Your task to perform on an android device: What's the weather? Image 0: 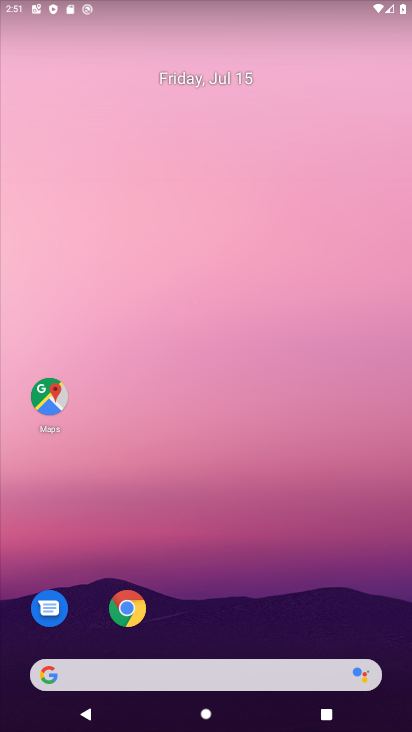
Step 0: drag from (0, 214) to (411, 233)
Your task to perform on an android device: What's the weather? Image 1: 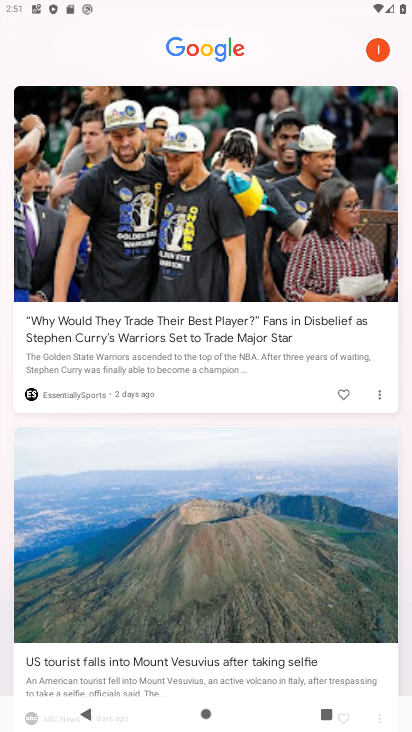
Step 1: drag from (303, 273) to (251, 601)
Your task to perform on an android device: What's the weather? Image 2: 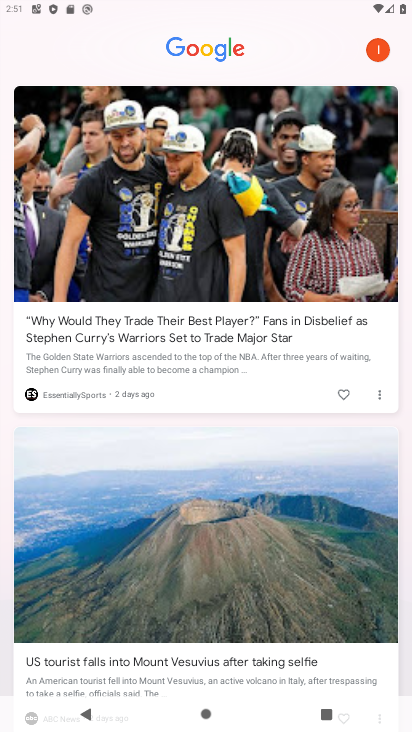
Step 2: press home button
Your task to perform on an android device: What's the weather? Image 3: 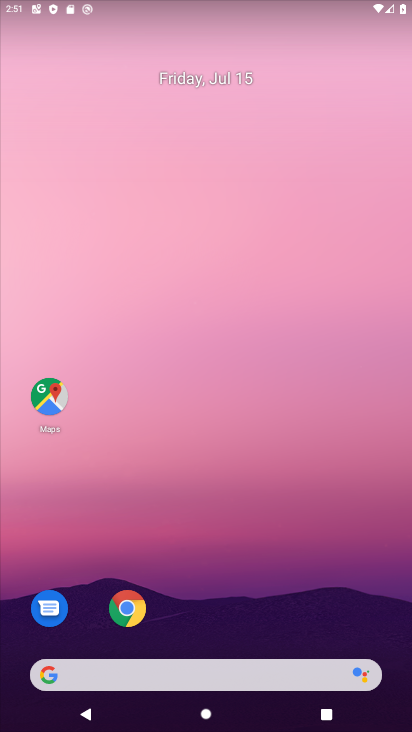
Step 3: click (215, 676)
Your task to perform on an android device: What's the weather? Image 4: 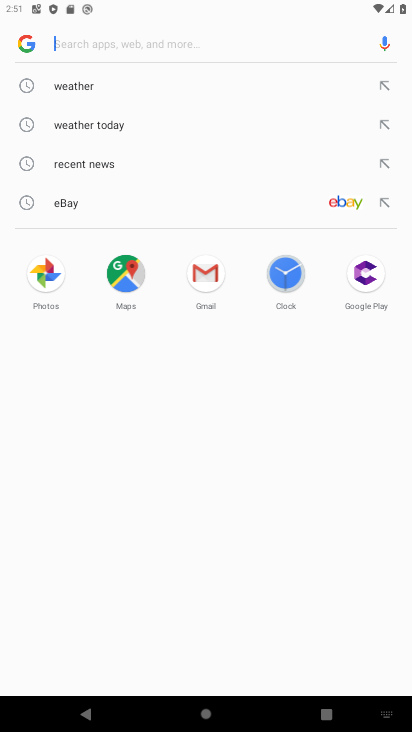
Step 4: type "What's the weather?"
Your task to perform on an android device: What's the weather? Image 5: 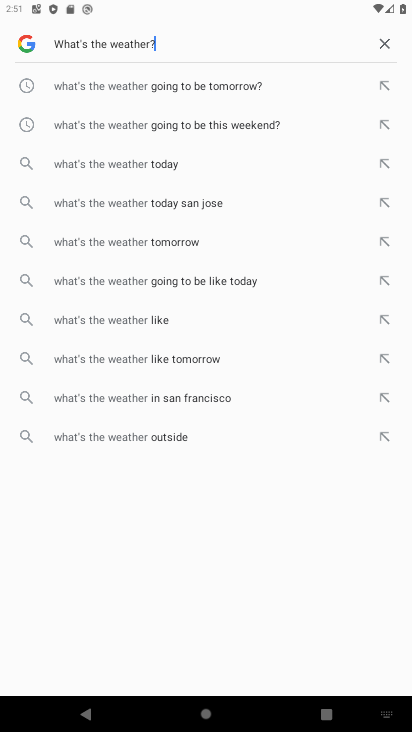
Step 5: click (174, 170)
Your task to perform on an android device: What's the weather? Image 6: 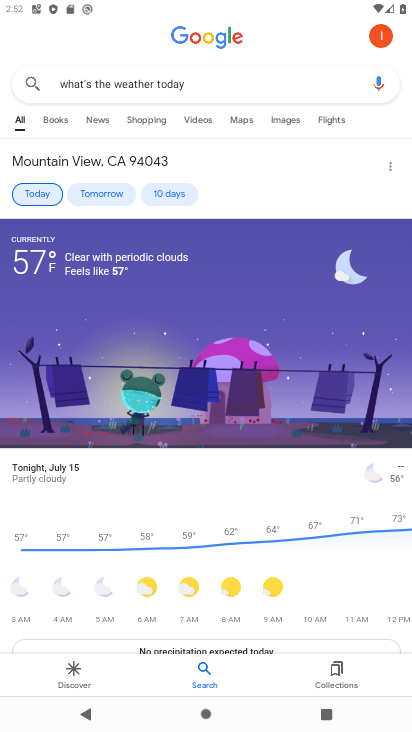
Step 6: task complete